Your task to perform on an android device: turn pop-ups on in chrome Image 0: 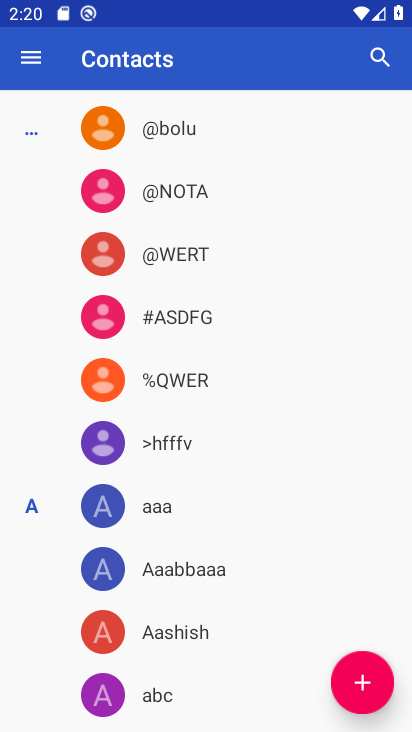
Step 0: press back button
Your task to perform on an android device: turn pop-ups on in chrome Image 1: 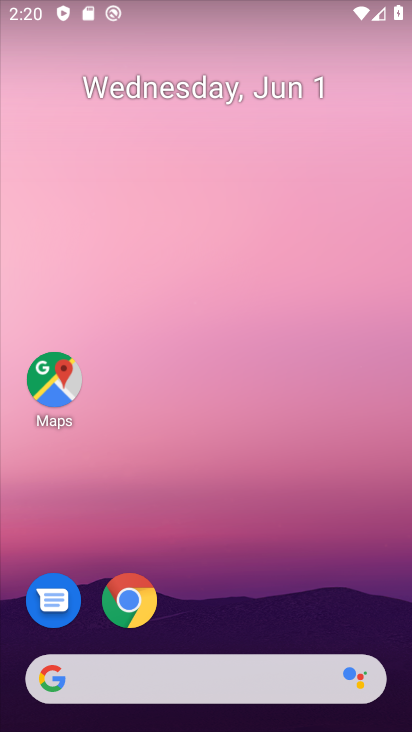
Step 1: drag from (234, 458) to (197, 26)
Your task to perform on an android device: turn pop-ups on in chrome Image 2: 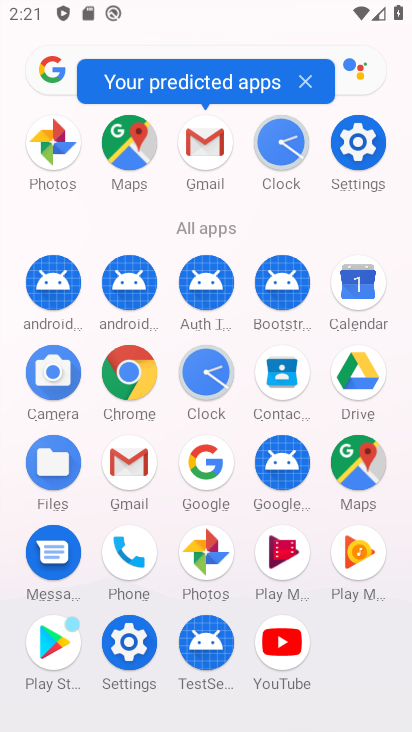
Step 2: drag from (17, 571) to (21, 229)
Your task to perform on an android device: turn pop-ups on in chrome Image 3: 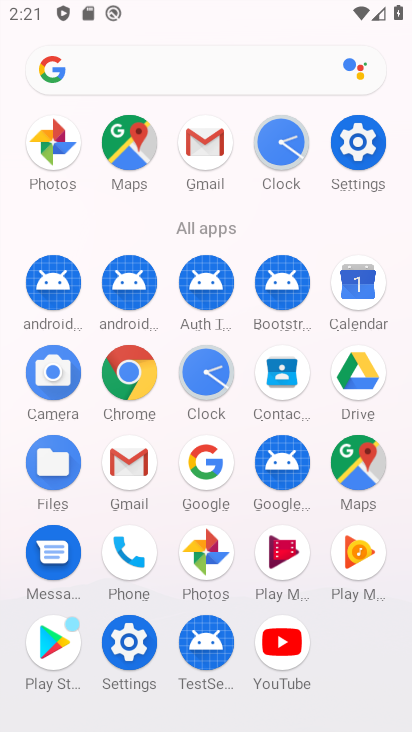
Step 3: click (129, 368)
Your task to perform on an android device: turn pop-ups on in chrome Image 4: 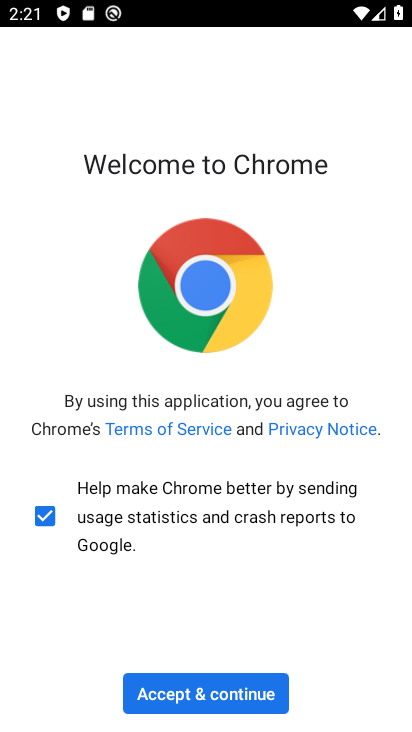
Step 4: click (183, 678)
Your task to perform on an android device: turn pop-ups on in chrome Image 5: 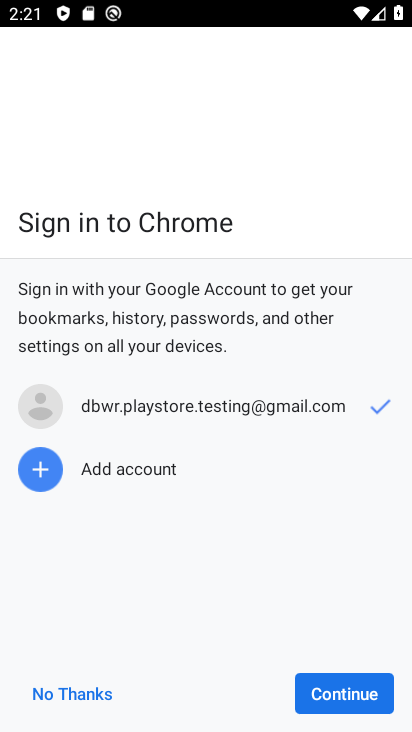
Step 5: click (329, 697)
Your task to perform on an android device: turn pop-ups on in chrome Image 6: 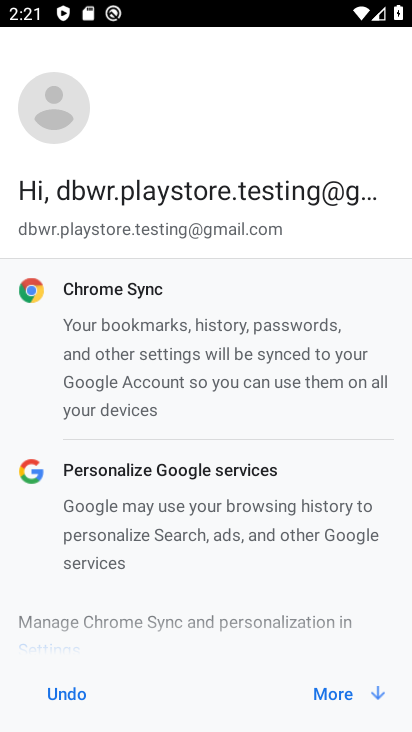
Step 6: click (347, 695)
Your task to perform on an android device: turn pop-ups on in chrome Image 7: 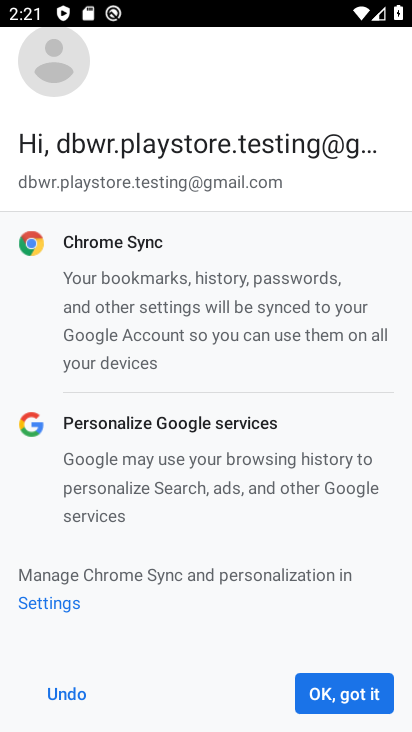
Step 7: click (336, 700)
Your task to perform on an android device: turn pop-ups on in chrome Image 8: 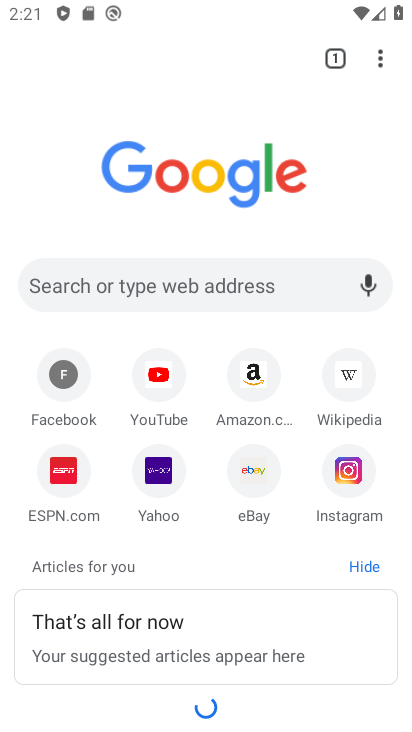
Step 8: drag from (378, 58) to (178, 488)
Your task to perform on an android device: turn pop-ups on in chrome Image 9: 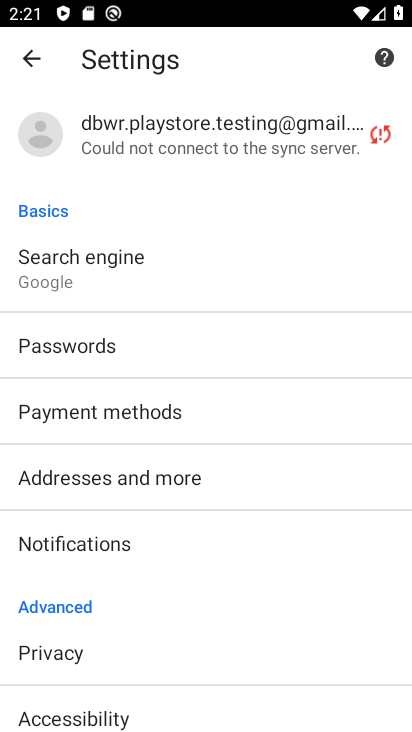
Step 9: drag from (237, 588) to (237, 152)
Your task to perform on an android device: turn pop-ups on in chrome Image 10: 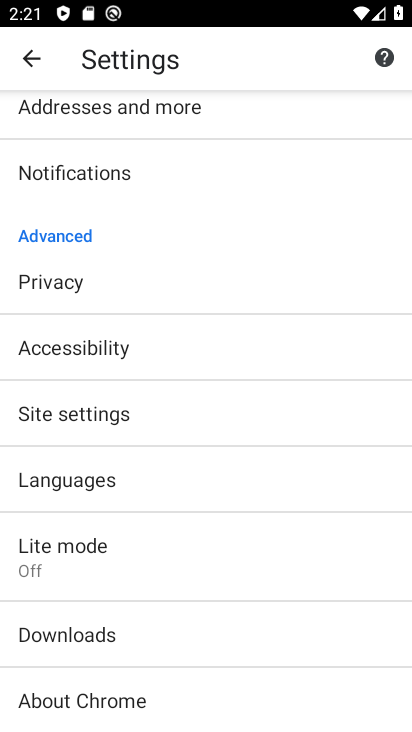
Step 10: click (128, 422)
Your task to perform on an android device: turn pop-ups on in chrome Image 11: 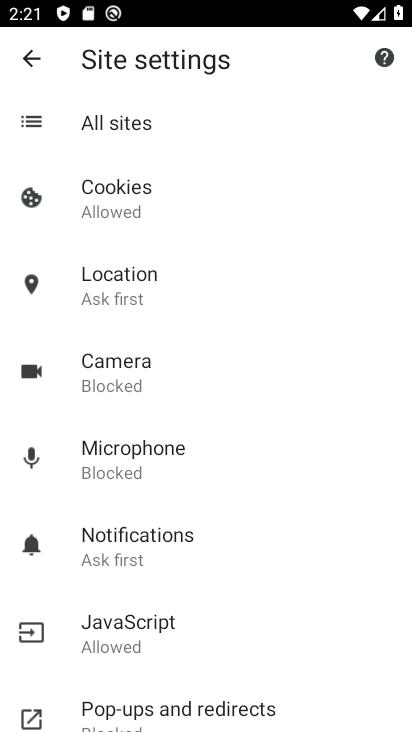
Step 11: drag from (212, 499) to (221, 293)
Your task to perform on an android device: turn pop-ups on in chrome Image 12: 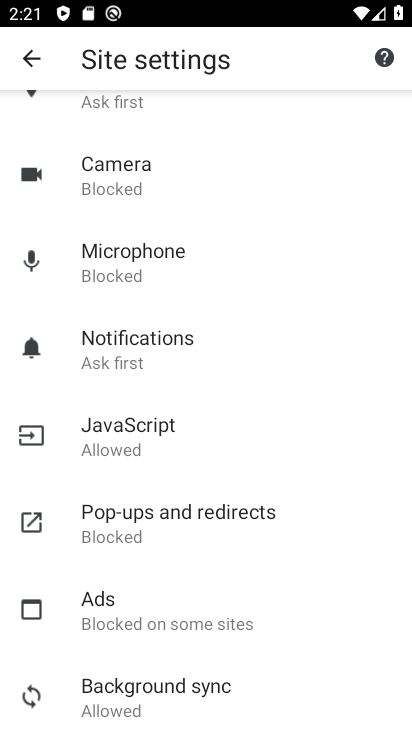
Step 12: click (198, 515)
Your task to perform on an android device: turn pop-ups on in chrome Image 13: 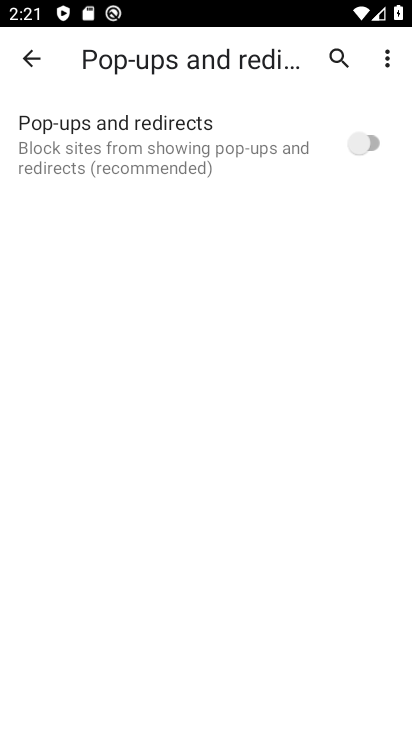
Step 13: click (368, 126)
Your task to perform on an android device: turn pop-ups on in chrome Image 14: 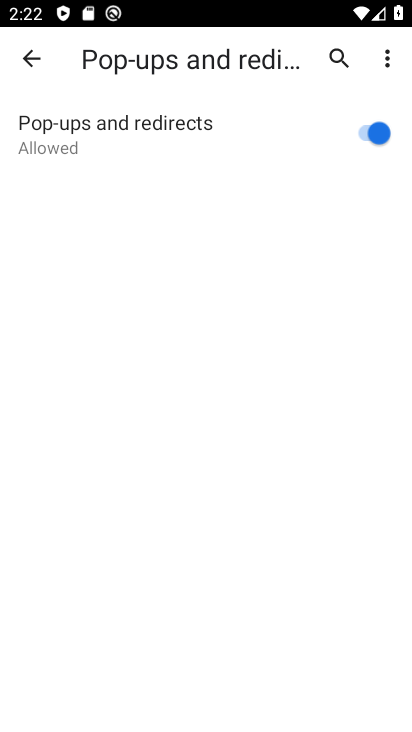
Step 14: task complete